Your task to perform on an android device: Open the web browser Image 0: 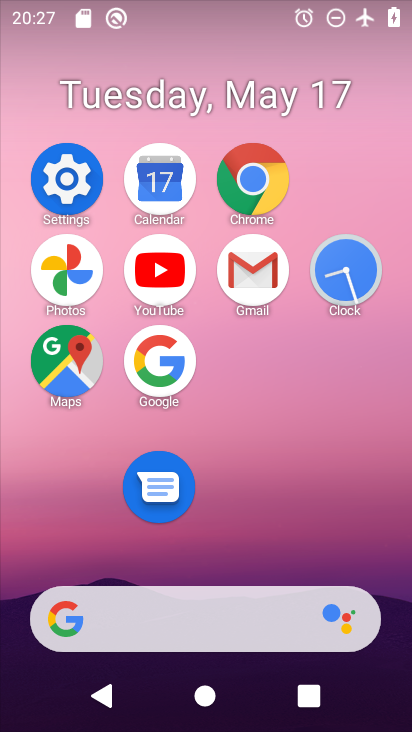
Step 0: click (242, 157)
Your task to perform on an android device: Open the web browser Image 1: 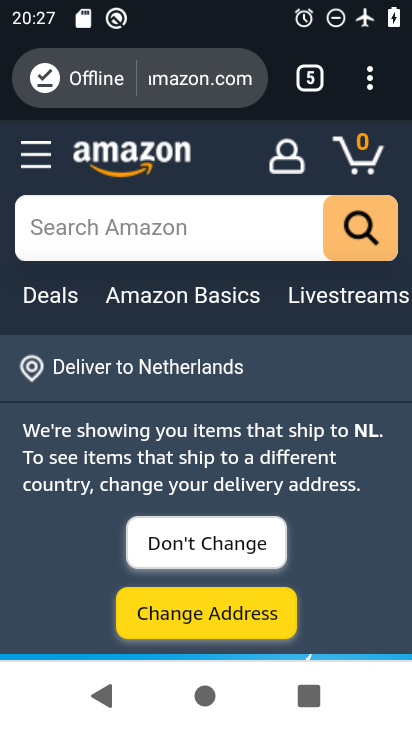
Step 1: task complete